Your task to perform on an android device: Search for pizza restaurants on Maps Image 0: 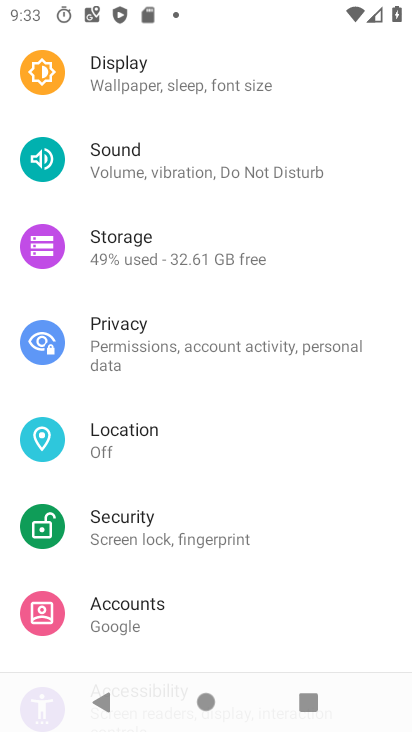
Step 0: press home button
Your task to perform on an android device: Search for pizza restaurants on Maps Image 1: 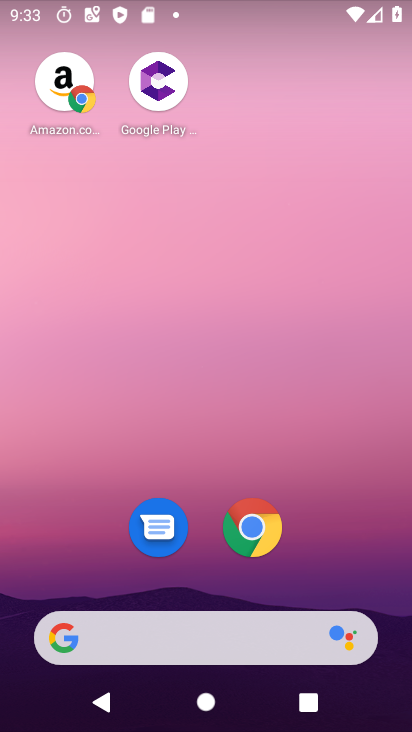
Step 1: drag from (328, 530) to (346, 1)
Your task to perform on an android device: Search for pizza restaurants on Maps Image 2: 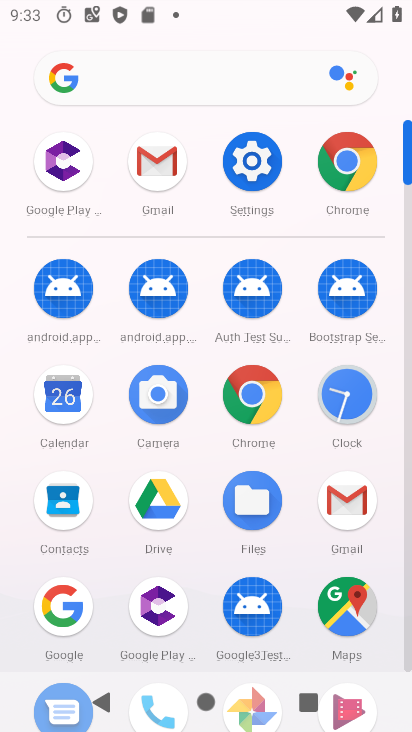
Step 2: click (358, 610)
Your task to perform on an android device: Search for pizza restaurants on Maps Image 3: 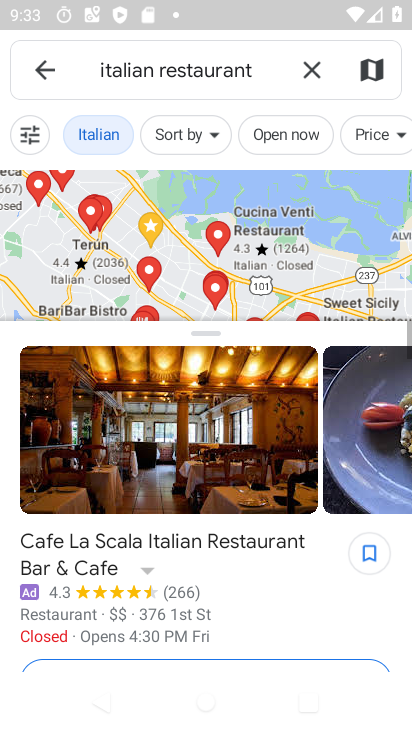
Step 3: click (298, 60)
Your task to perform on an android device: Search for pizza restaurants on Maps Image 4: 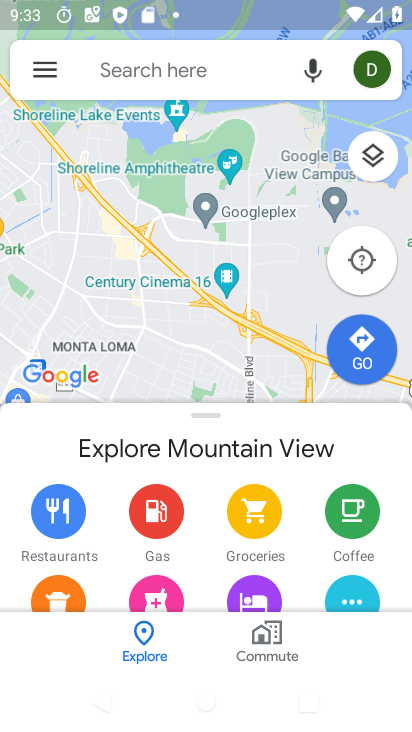
Step 4: click (249, 72)
Your task to perform on an android device: Search for pizza restaurants on Maps Image 5: 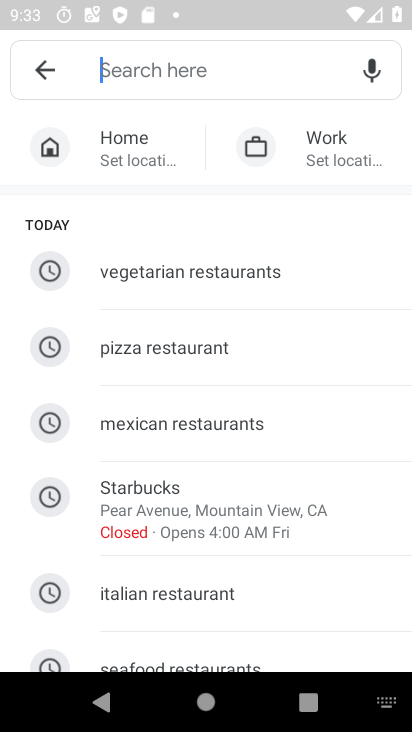
Step 5: type "pizza resturents"
Your task to perform on an android device: Search for pizza restaurants on Maps Image 6: 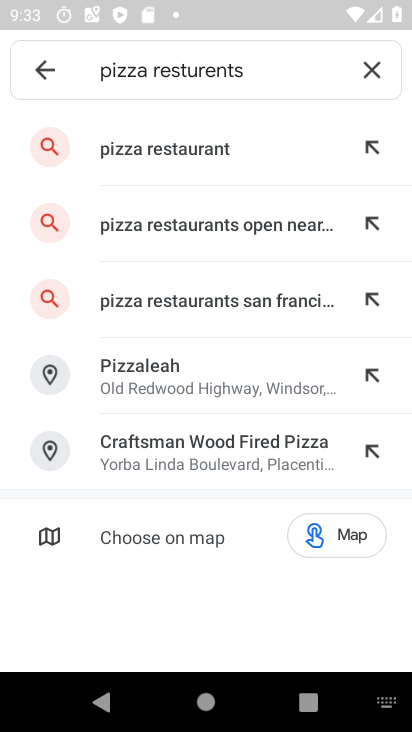
Step 6: click (238, 147)
Your task to perform on an android device: Search for pizza restaurants on Maps Image 7: 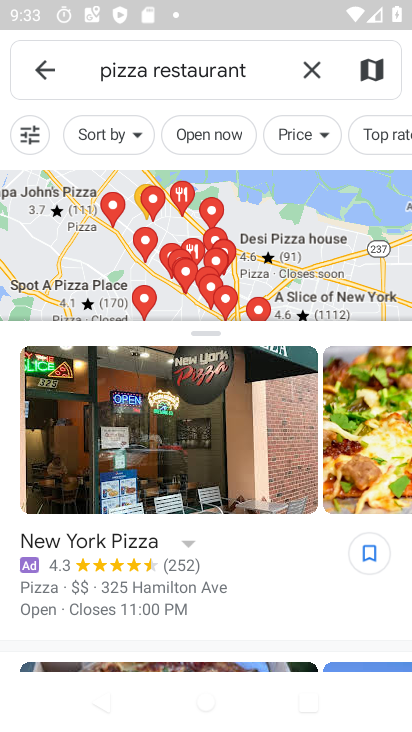
Step 7: task complete